Your task to perform on an android device: Open ESPN.com Image 0: 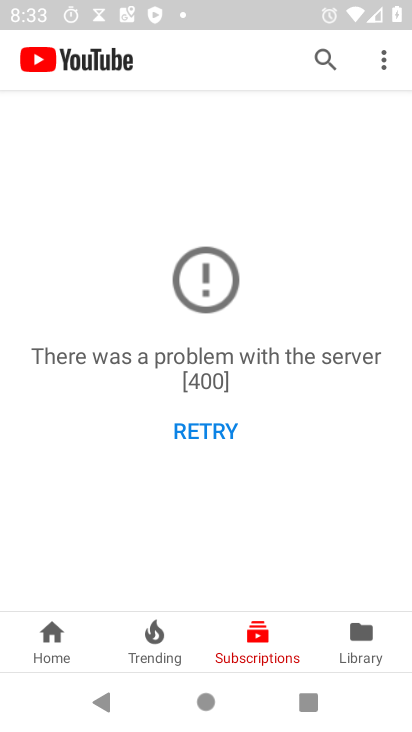
Step 0: press home button
Your task to perform on an android device: Open ESPN.com Image 1: 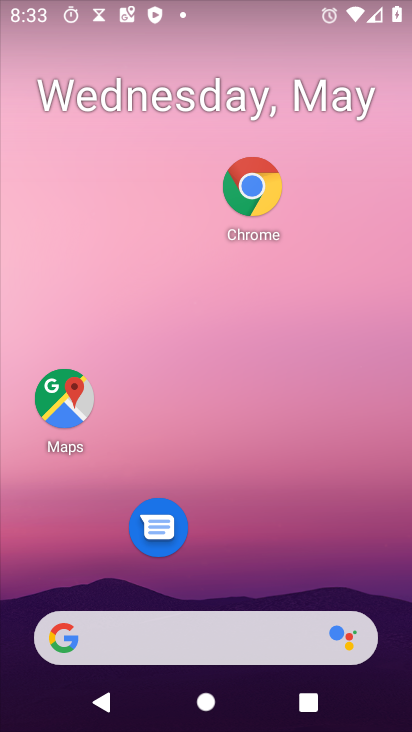
Step 1: drag from (256, 529) to (242, 99)
Your task to perform on an android device: Open ESPN.com Image 2: 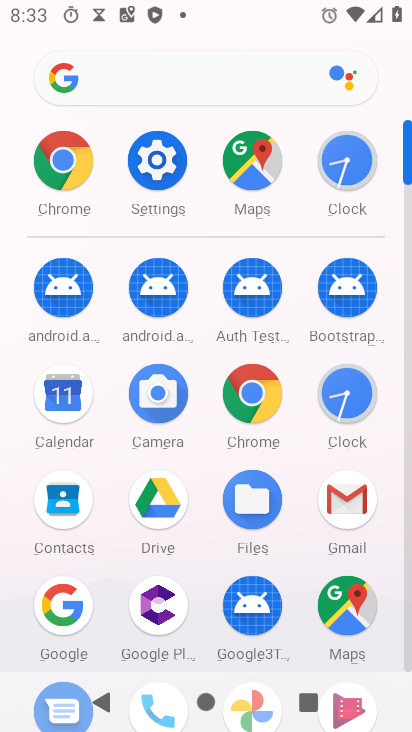
Step 2: click (255, 399)
Your task to perform on an android device: Open ESPN.com Image 3: 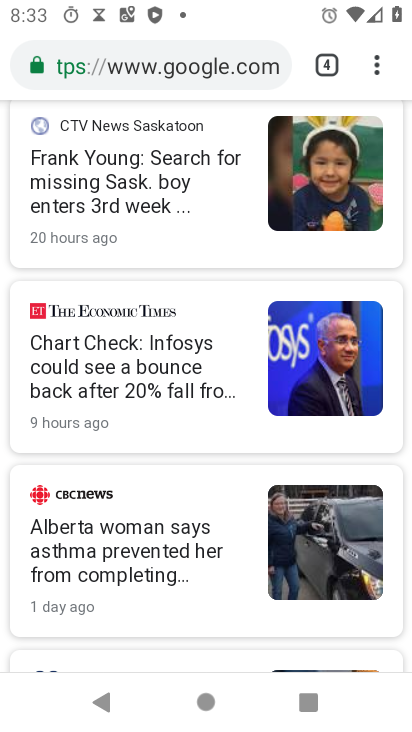
Step 3: click (202, 66)
Your task to perform on an android device: Open ESPN.com Image 4: 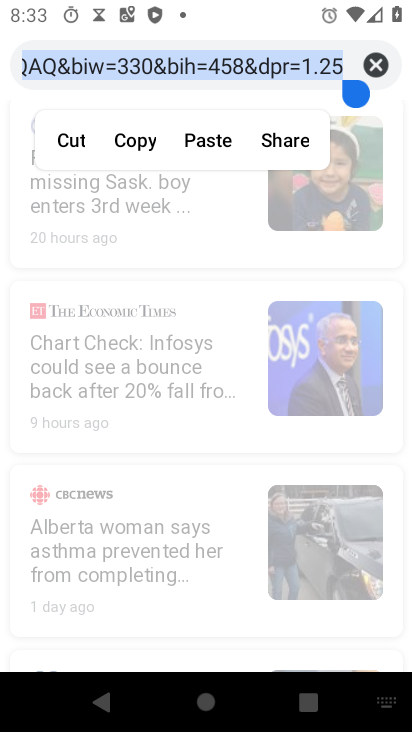
Step 4: click (373, 59)
Your task to perform on an android device: Open ESPN.com Image 5: 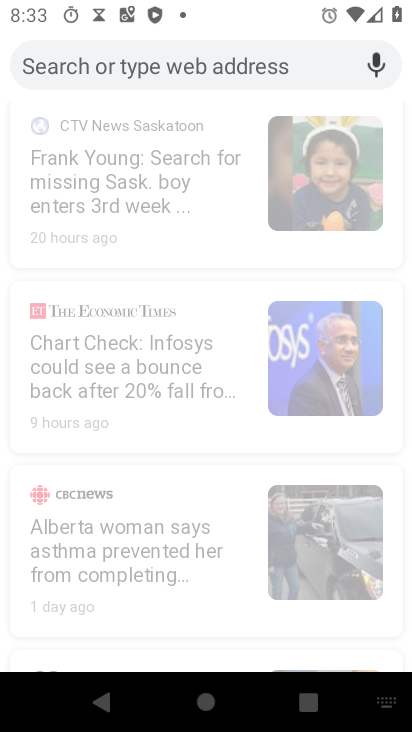
Step 5: type " ESPN.com"
Your task to perform on an android device: Open ESPN.com Image 6: 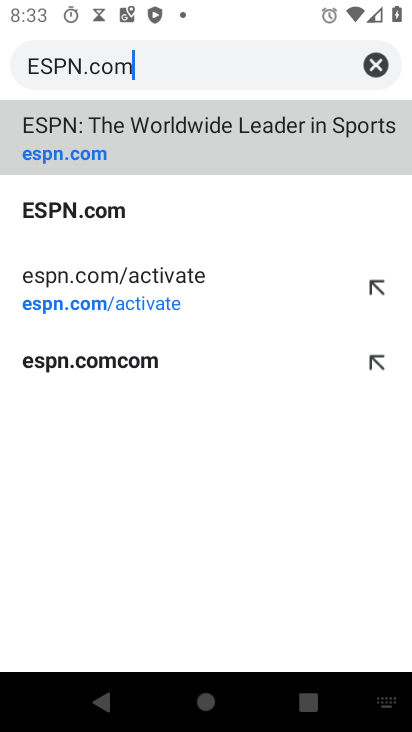
Step 6: click (101, 155)
Your task to perform on an android device: Open ESPN.com Image 7: 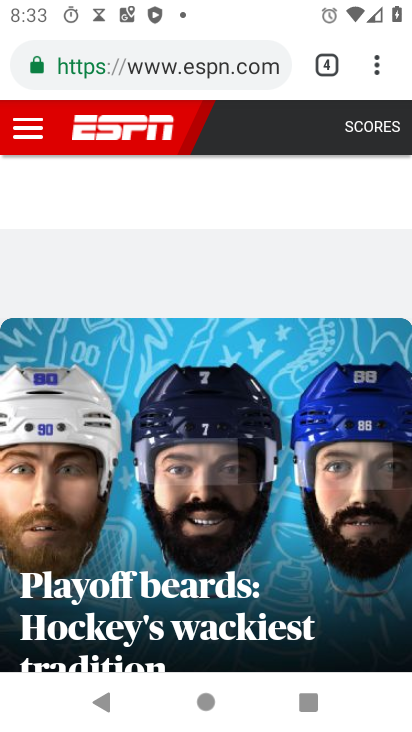
Step 7: task complete